Your task to perform on an android device: Check the news Image 0: 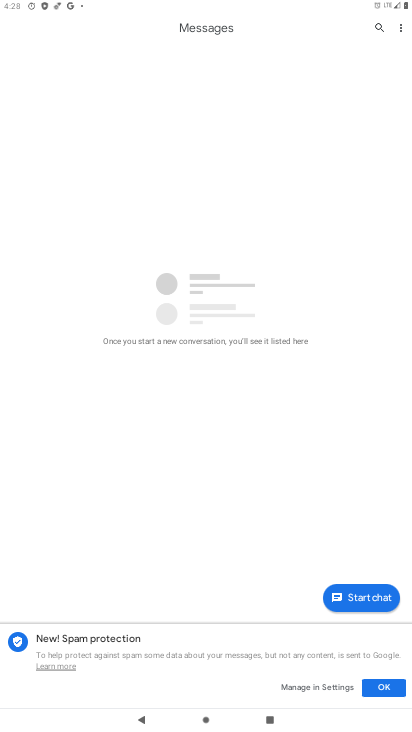
Step 0: press home button
Your task to perform on an android device: Check the news Image 1: 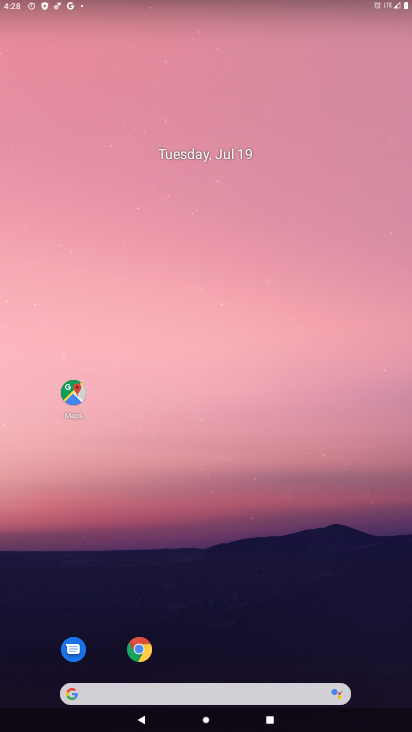
Step 1: drag from (340, 592) to (274, 72)
Your task to perform on an android device: Check the news Image 2: 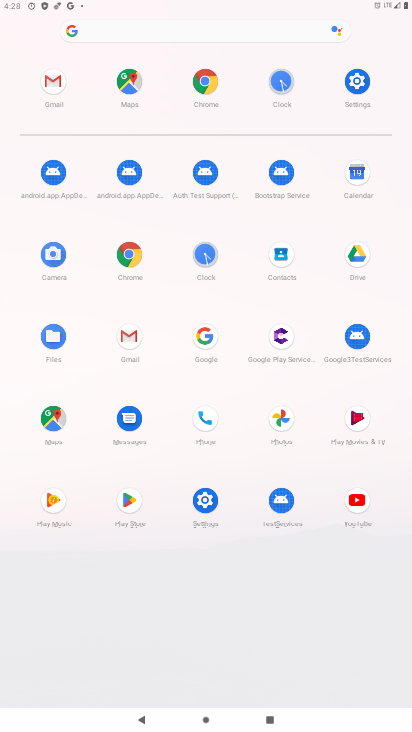
Step 2: click (189, 81)
Your task to perform on an android device: Check the news Image 3: 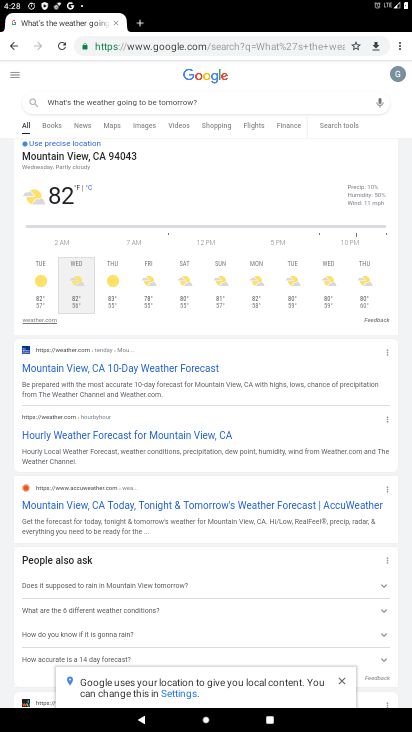
Step 3: click (195, 42)
Your task to perform on an android device: Check the news Image 4: 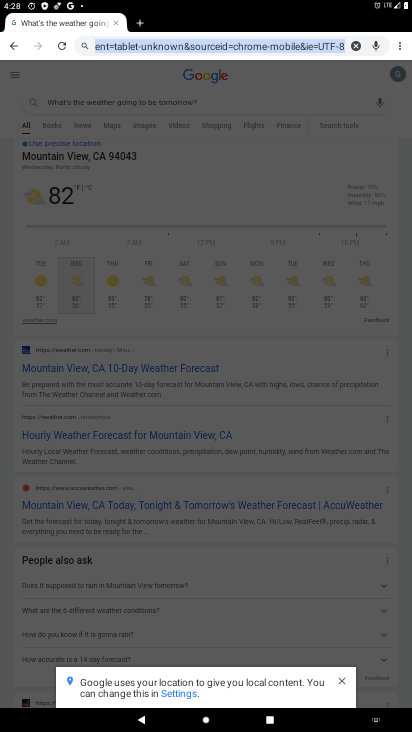
Step 4: type "news"
Your task to perform on an android device: Check the news Image 5: 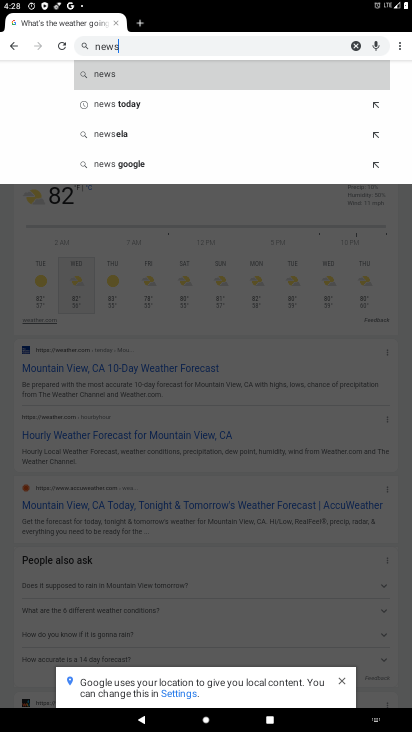
Step 5: click (280, 71)
Your task to perform on an android device: Check the news Image 6: 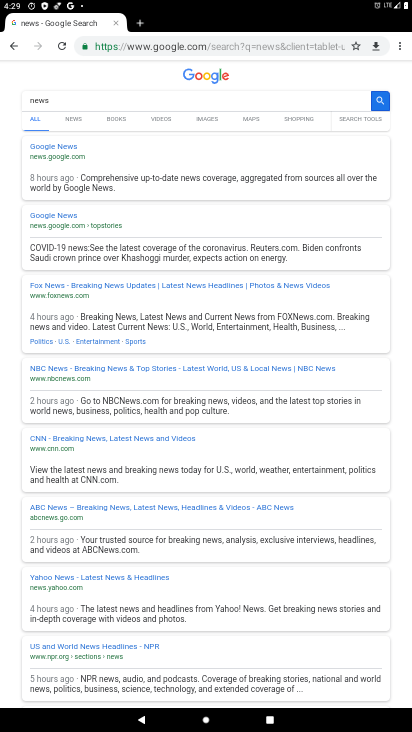
Step 6: click (55, 211)
Your task to perform on an android device: Check the news Image 7: 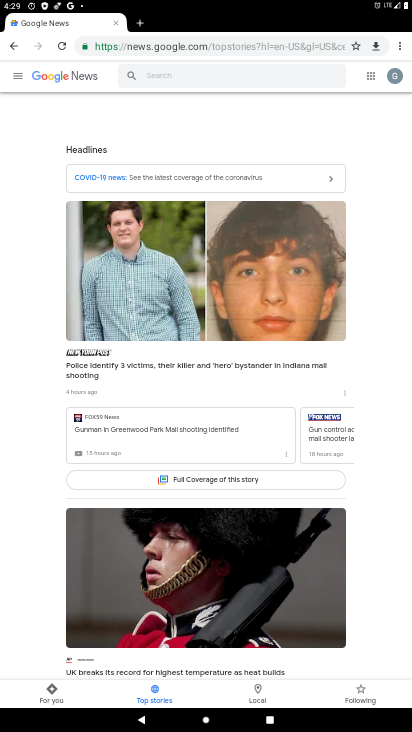
Step 7: task complete